Your task to perform on an android device: Open calendar and show me the first week of next month Image 0: 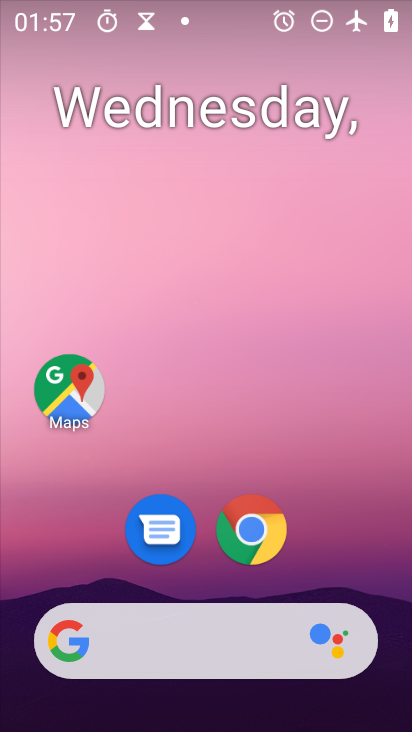
Step 0: drag from (217, 625) to (281, 51)
Your task to perform on an android device: Open calendar and show me the first week of next month Image 1: 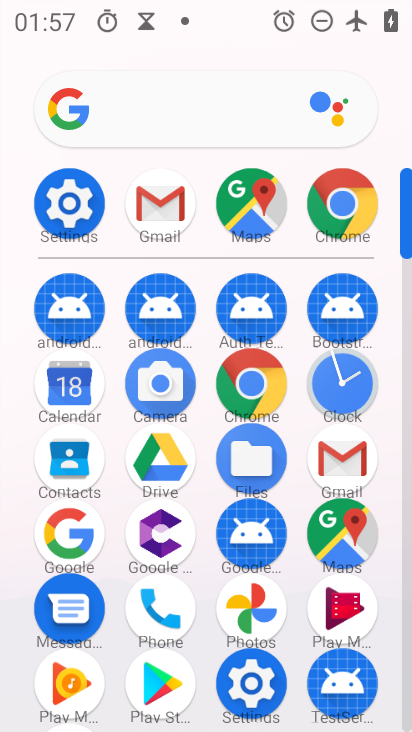
Step 1: click (79, 402)
Your task to perform on an android device: Open calendar and show me the first week of next month Image 2: 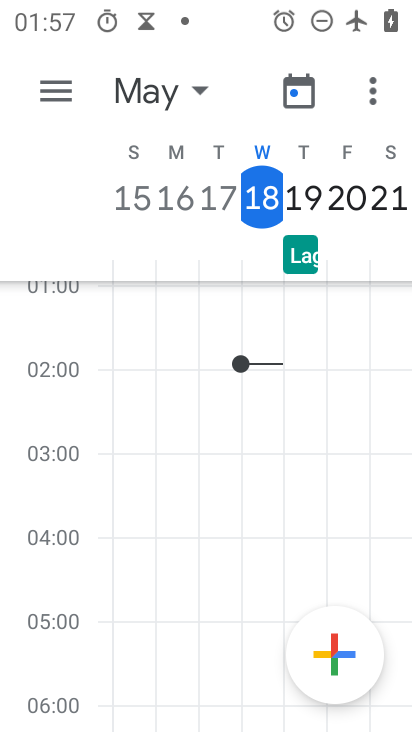
Step 2: click (195, 93)
Your task to perform on an android device: Open calendar and show me the first week of next month Image 3: 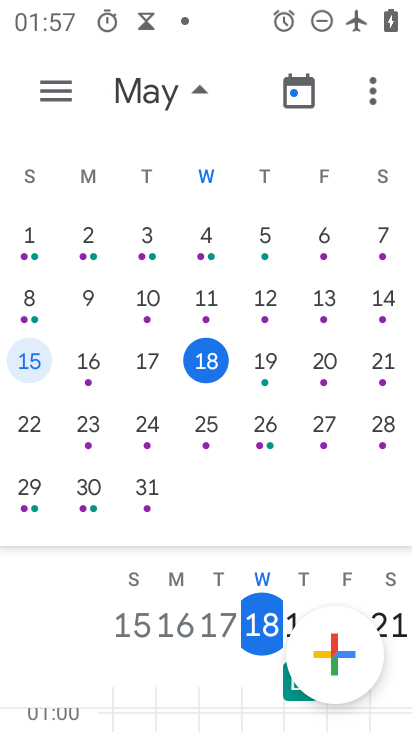
Step 3: drag from (361, 341) to (9, 428)
Your task to perform on an android device: Open calendar and show me the first week of next month Image 4: 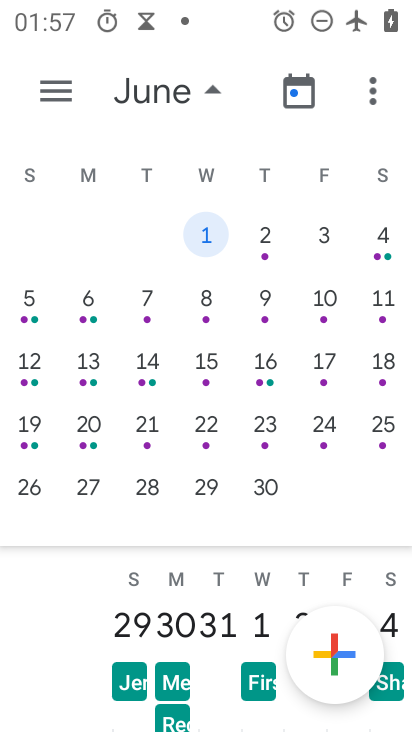
Step 4: click (313, 236)
Your task to perform on an android device: Open calendar and show me the first week of next month Image 5: 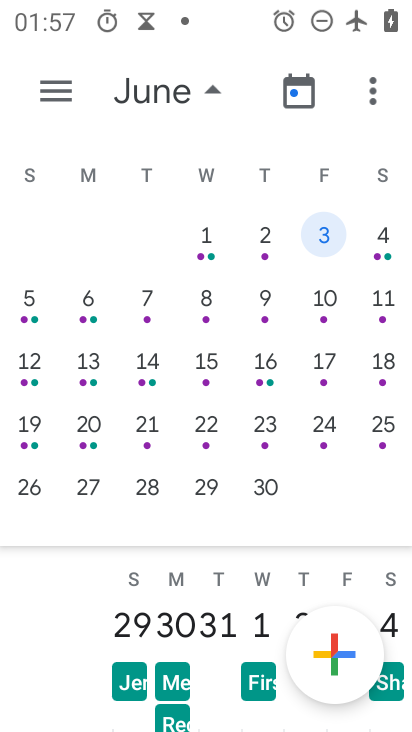
Step 5: task complete